Your task to perform on an android device: What's on my calendar today? Image 0: 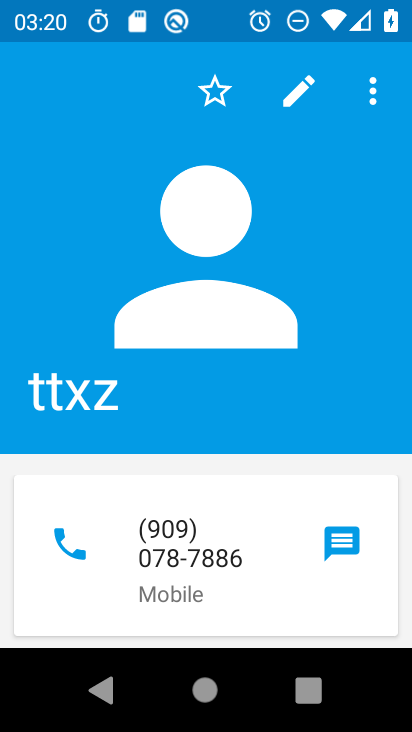
Step 0: press home button
Your task to perform on an android device: What's on my calendar today? Image 1: 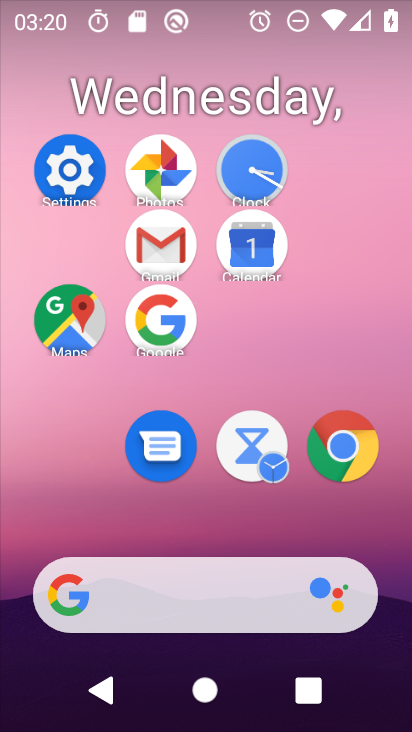
Step 1: click (238, 245)
Your task to perform on an android device: What's on my calendar today? Image 2: 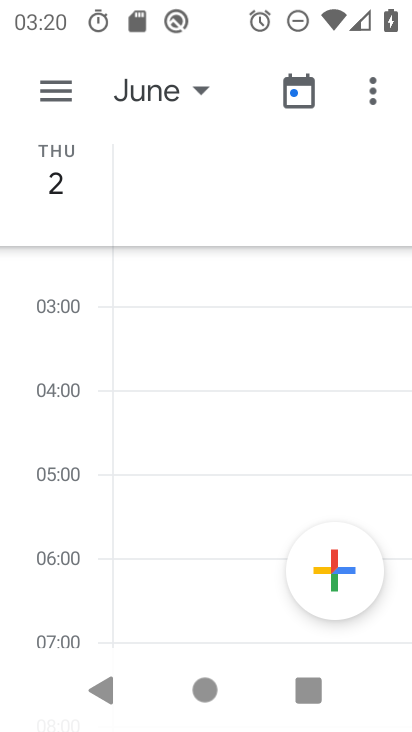
Step 2: click (191, 93)
Your task to perform on an android device: What's on my calendar today? Image 3: 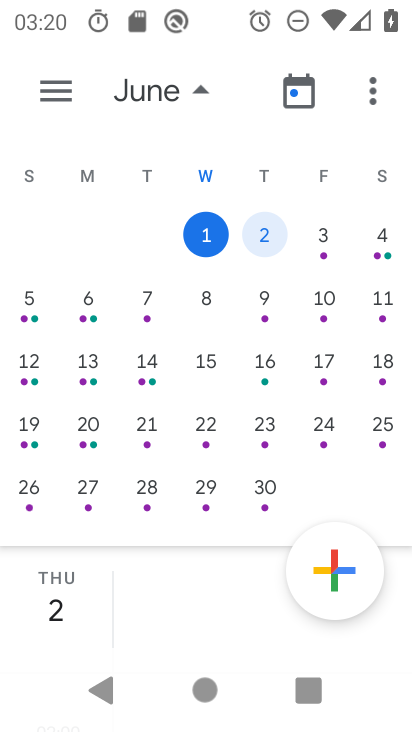
Step 3: click (206, 225)
Your task to perform on an android device: What's on my calendar today? Image 4: 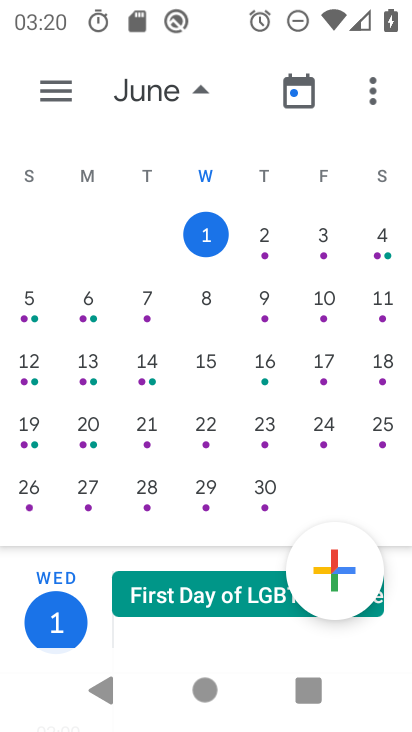
Step 4: click (176, 592)
Your task to perform on an android device: What's on my calendar today? Image 5: 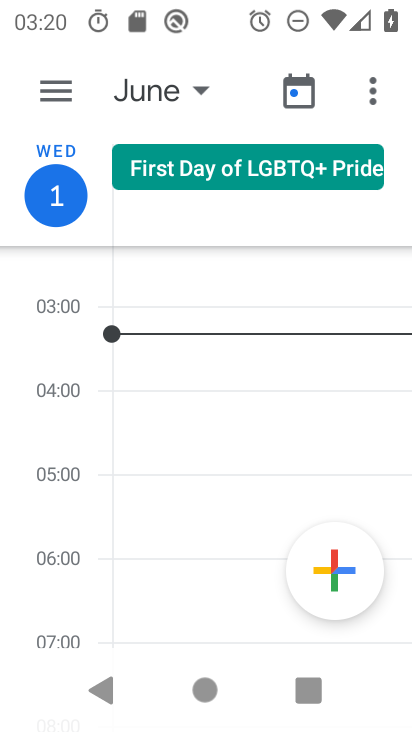
Step 5: task complete